Your task to perform on an android device: See recent photos Image 0: 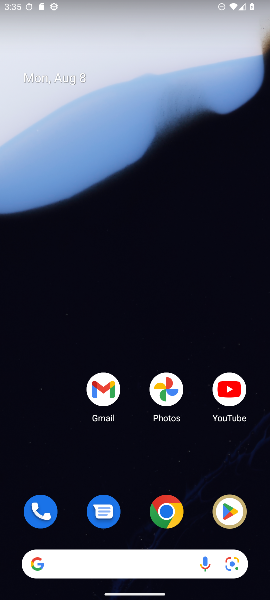
Step 0: drag from (144, 447) to (176, 135)
Your task to perform on an android device: See recent photos Image 1: 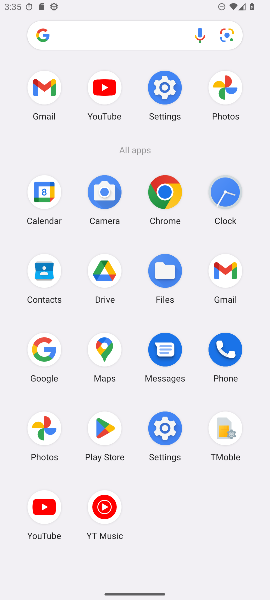
Step 1: click (39, 428)
Your task to perform on an android device: See recent photos Image 2: 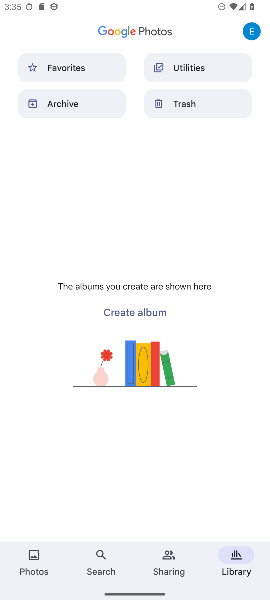
Step 2: click (23, 560)
Your task to perform on an android device: See recent photos Image 3: 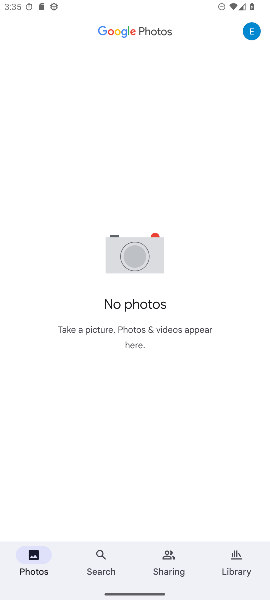
Step 3: task complete